Your task to perform on an android device: move an email to a new category in the gmail app Image 0: 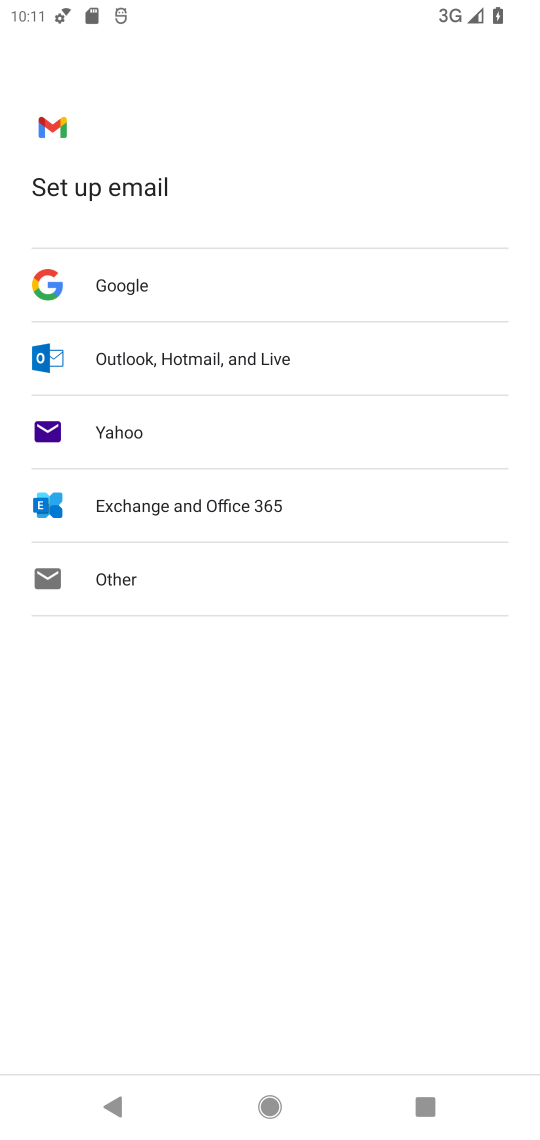
Step 0: press home button
Your task to perform on an android device: move an email to a new category in the gmail app Image 1: 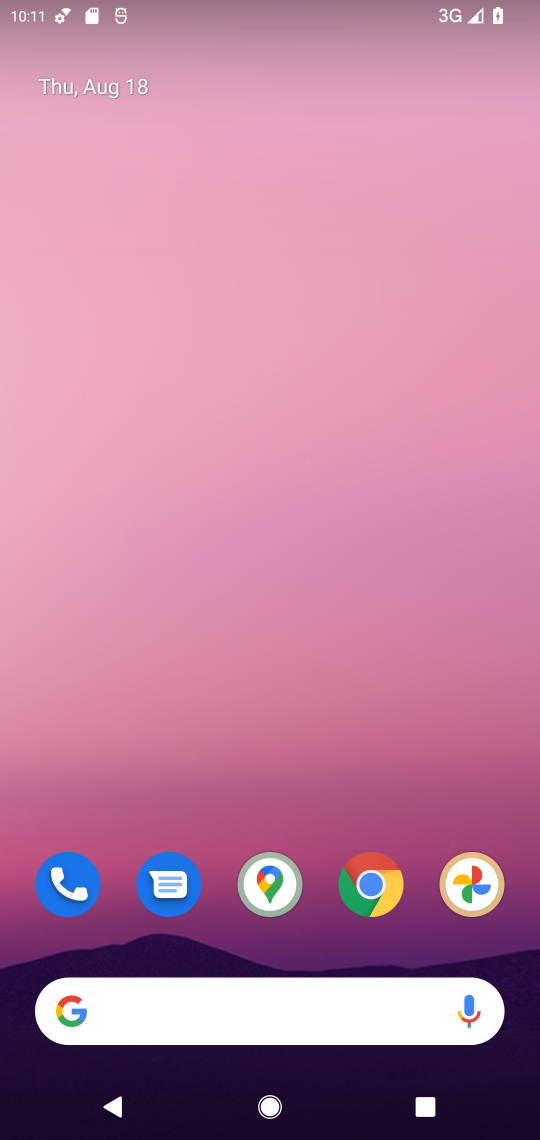
Step 1: drag from (344, 930) to (424, 26)
Your task to perform on an android device: move an email to a new category in the gmail app Image 2: 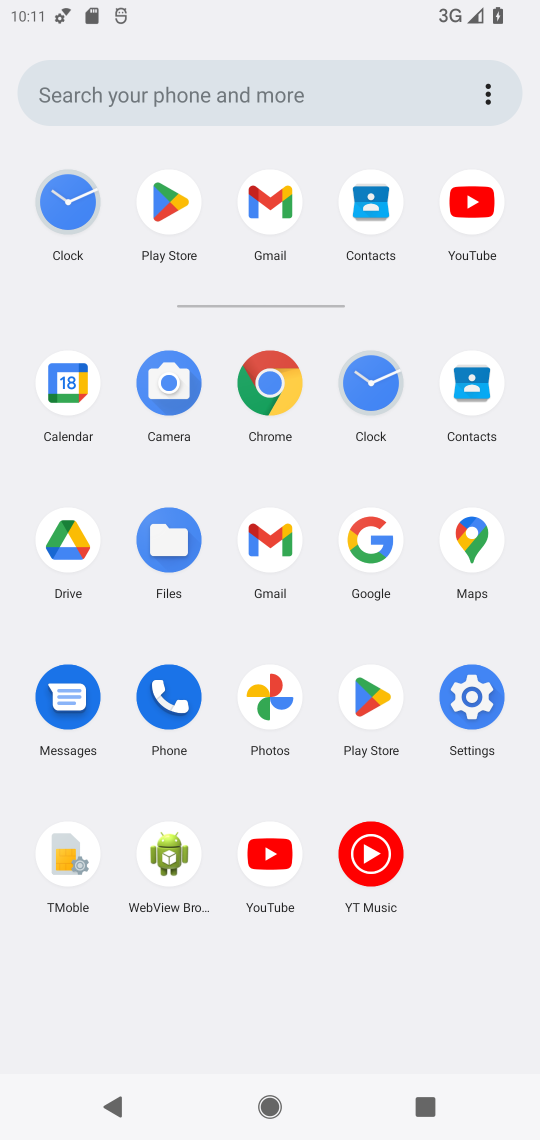
Step 2: click (281, 195)
Your task to perform on an android device: move an email to a new category in the gmail app Image 3: 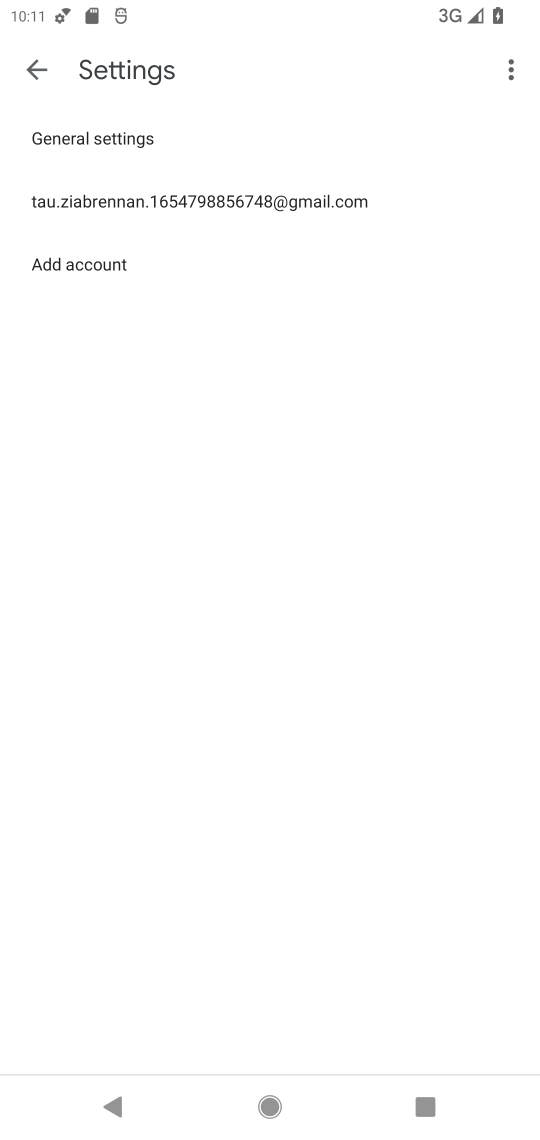
Step 3: click (45, 70)
Your task to perform on an android device: move an email to a new category in the gmail app Image 4: 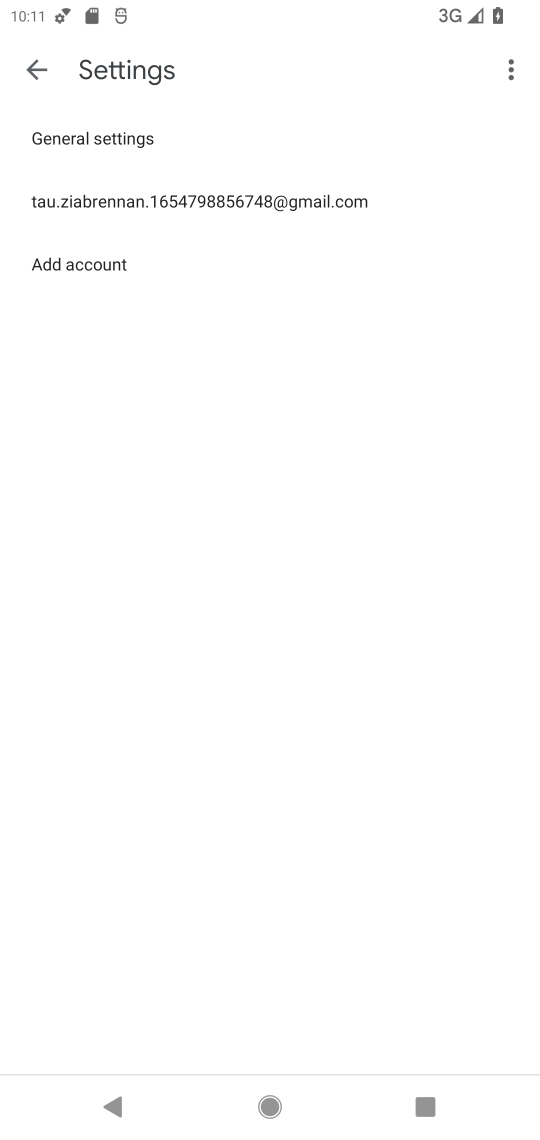
Step 4: click (45, 70)
Your task to perform on an android device: move an email to a new category in the gmail app Image 5: 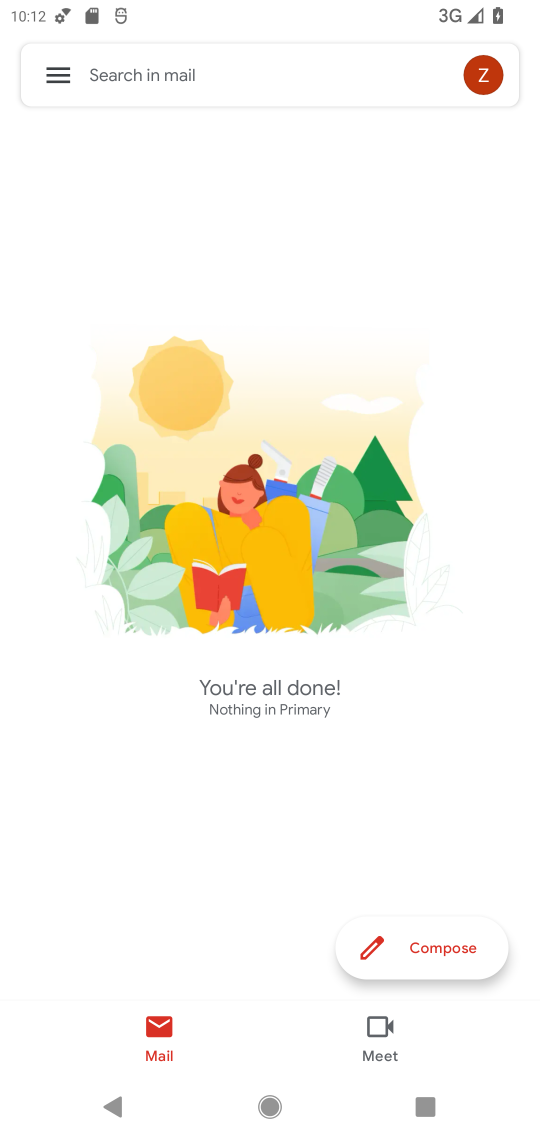
Step 5: task complete